Your task to perform on an android device: star an email in the gmail app Image 0: 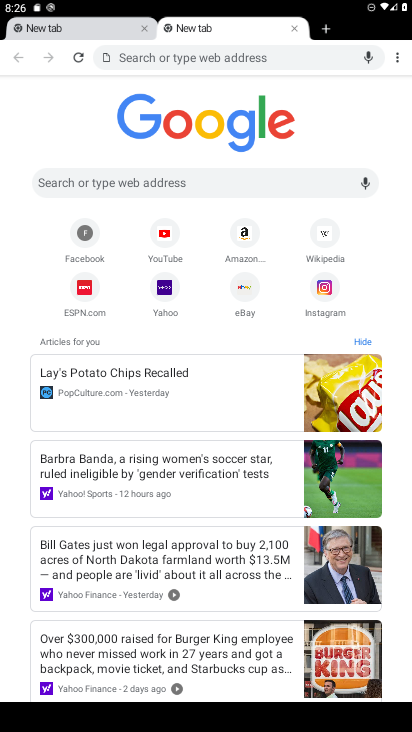
Step 0: press home button
Your task to perform on an android device: star an email in the gmail app Image 1: 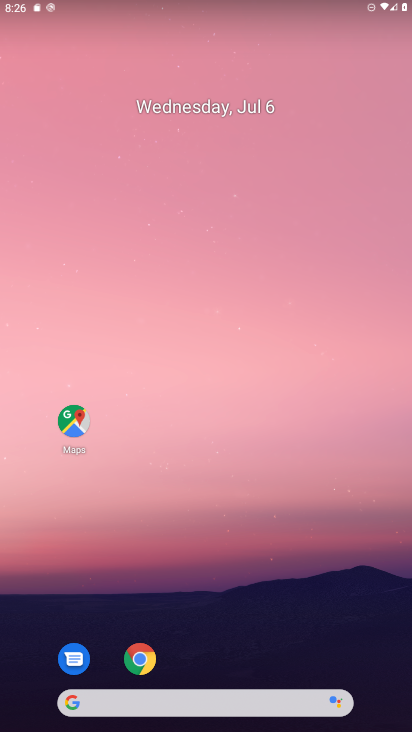
Step 1: drag from (128, 644) to (202, 177)
Your task to perform on an android device: star an email in the gmail app Image 2: 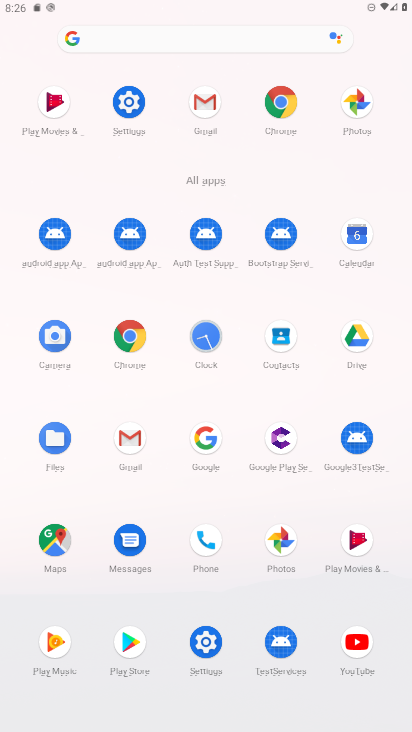
Step 2: click (214, 126)
Your task to perform on an android device: star an email in the gmail app Image 3: 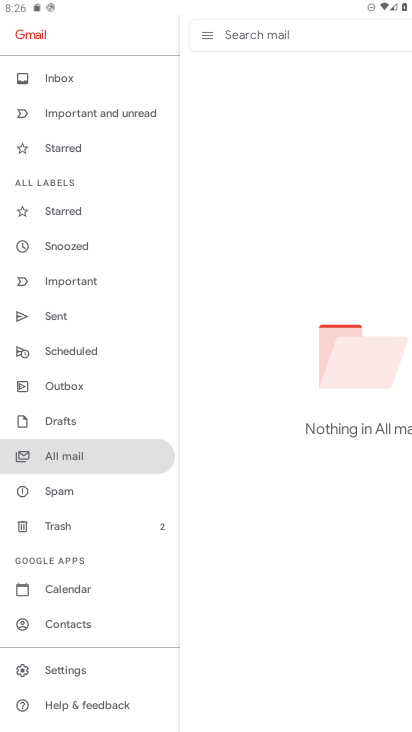
Step 3: click (102, 456)
Your task to perform on an android device: star an email in the gmail app Image 4: 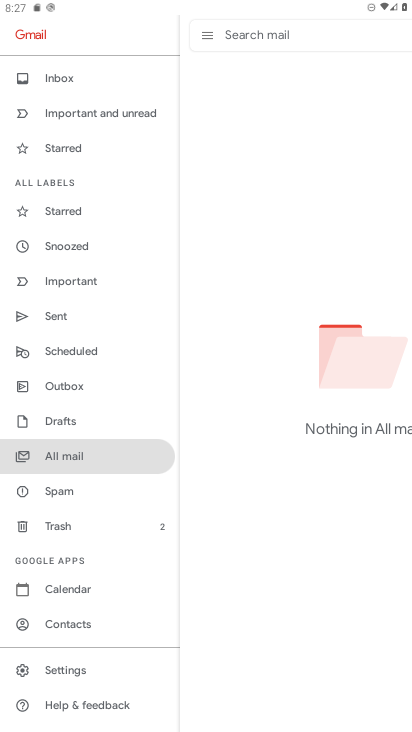
Step 4: task complete